Your task to perform on an android device: What's the weather going to be this weekend? Image 0: 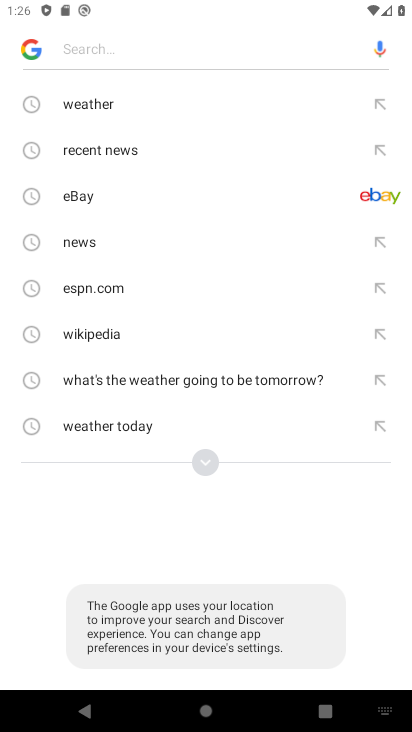
Step 0: press home button
Your task to perform on an android device: What's the weather going to be this weekend? Image 1: 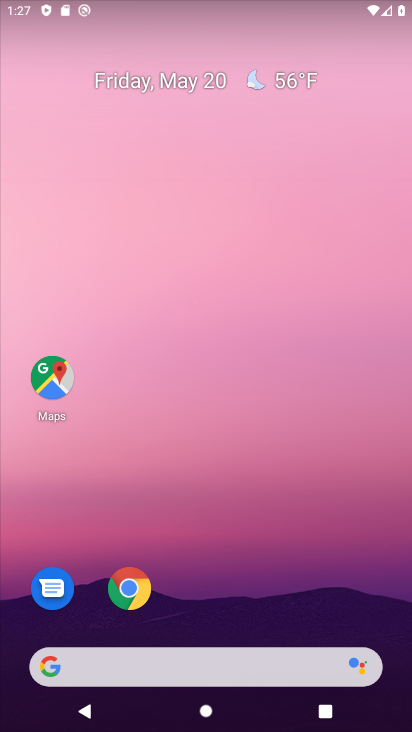
Step 1: drag from (67, 471) to (207, 229)
Your task to perform on an android device: What's the weather going to be this weekend? Image 2: 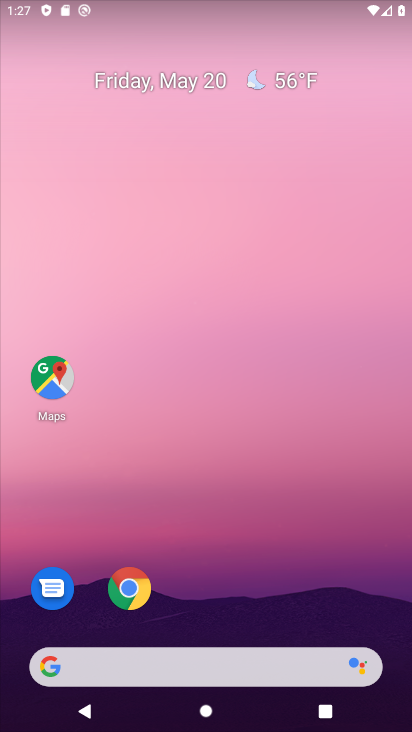
Step 2: drag from (9, 610) to (232, 142)
Your task to perform on an android device: What's the weather going to be this weekend? Image 3: 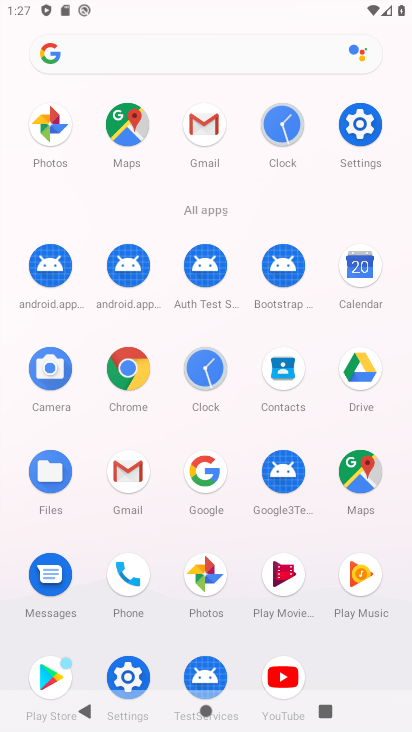
Step 3: click (352, 266)
Your task to perform on an android device: What's the weather going to be this weekend? Image 4: 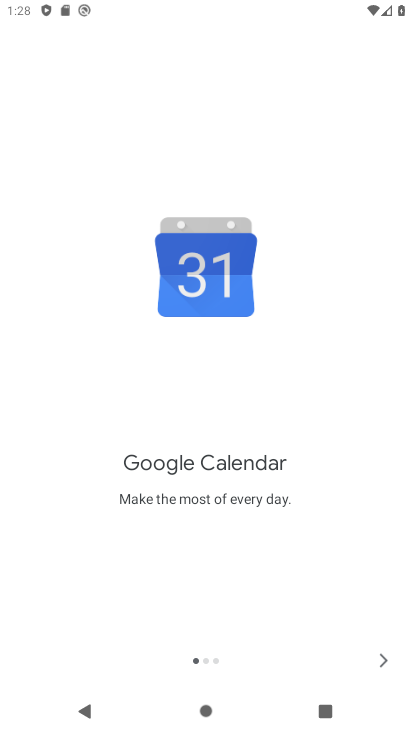
Step 4: click (383, 662)
Your task to perform on an android device: What's the weather going to be this weekend? Image 5: 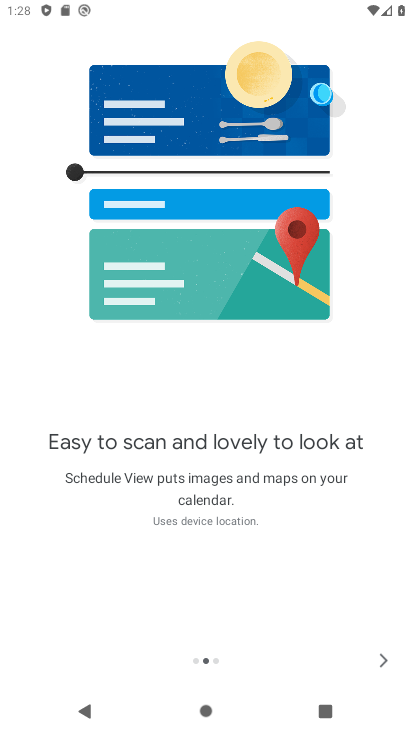
Step 5: click (368, 661)
Your task to perform on an android device: What's the weather going to be this weekend? Image 6: 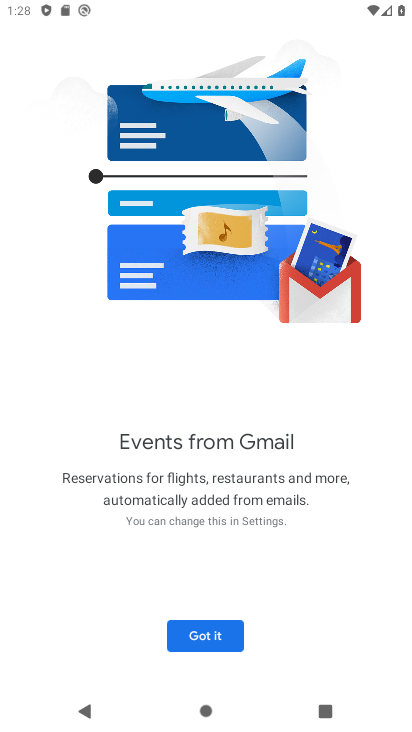
Step 6: click (241, 629)
Your task to perform on an android device: What's the weather going to be this weekend? Image 7: 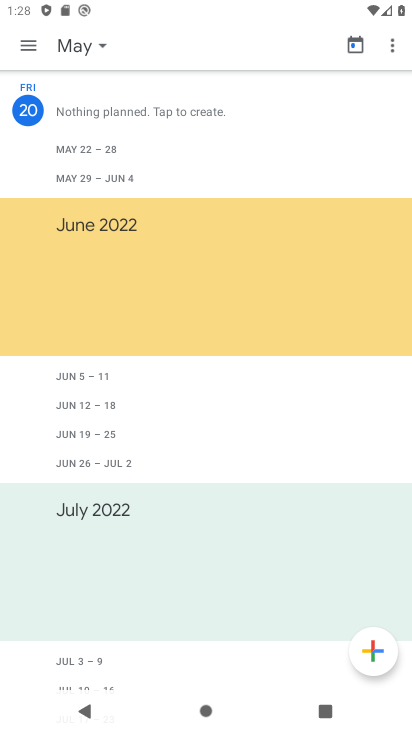
Step 7: click (86, 50)
Your task to perform on an android device: What's the weather going to be this weekend? Image 8: 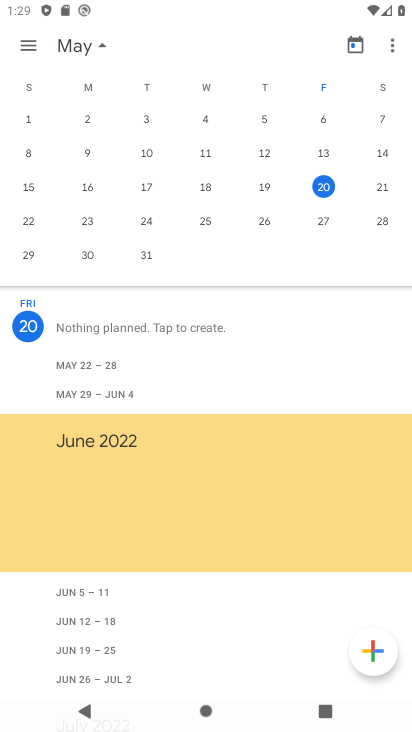
Step 8: drag from (392, 181) to (11, 135)
Your task to perform on an android device: What's the weather going to be this weekend? Image 9: 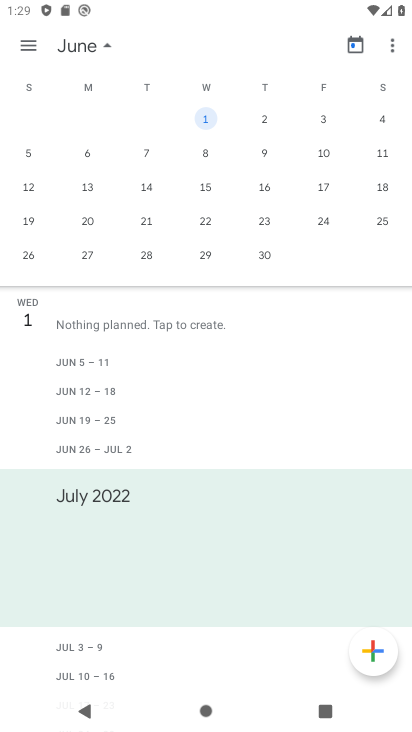
Step 9: press home button
Your task to perform on an android device: What's the weather going to be this weekend? Image 10: 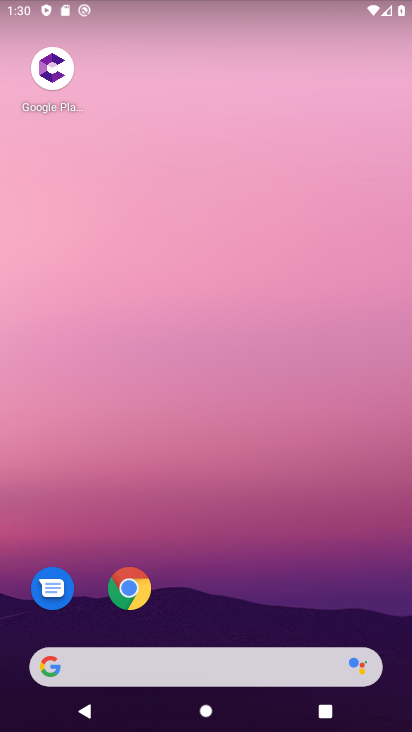
Step 10: drag from (45, 508) to (203, 102)
Your task to perform on an android device: What's the weather going to be this weekend? Image 11: 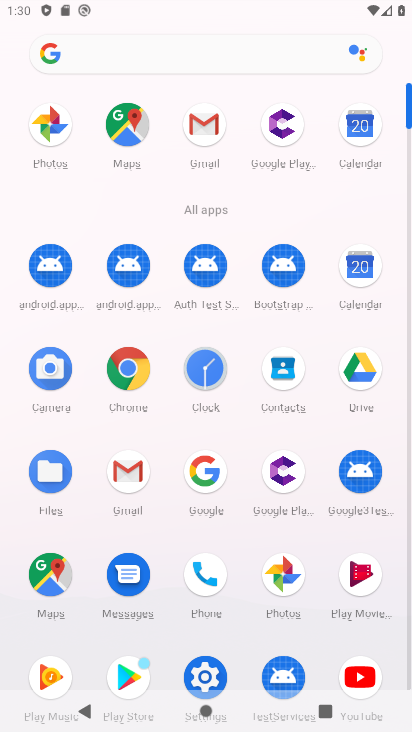
Step 11: click (364, 263)
Your task to perform on an android device: What's the weather going to be this weekend? Image 12: 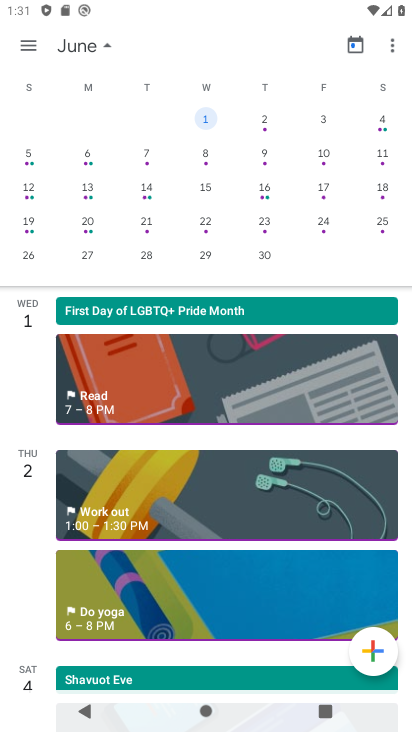
Step 12: task complete